Your task to perform on an android device: change text size in settings app Image 0: 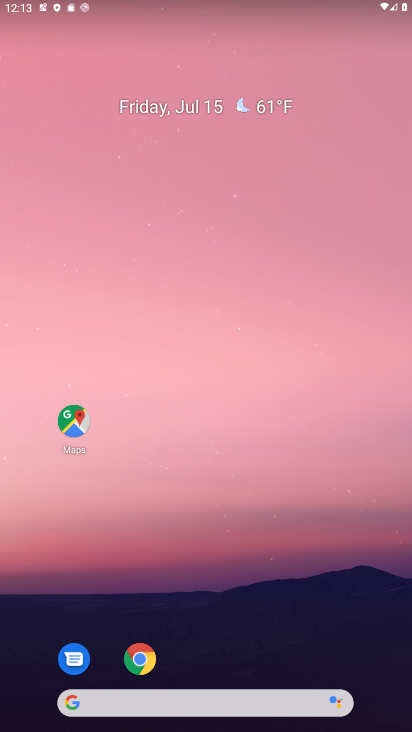
Step 0: drag from (237, 697) to (194, 303)
Your task to perform on an android device: change text size in settings app Image 1: 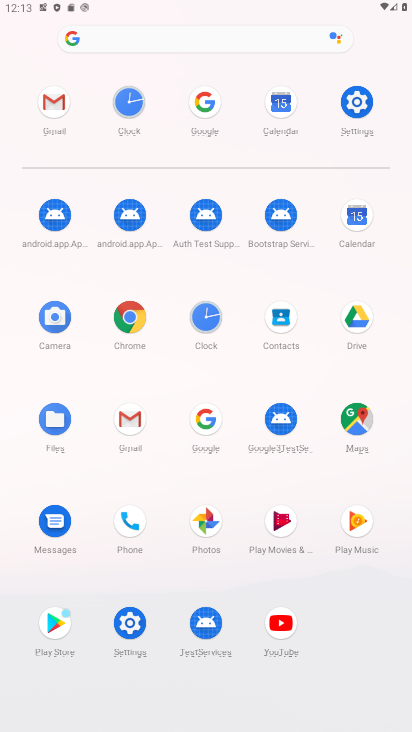
Step 1: click (132, 623)
Your task to perform on an android device: change text size in settings app Image 2: 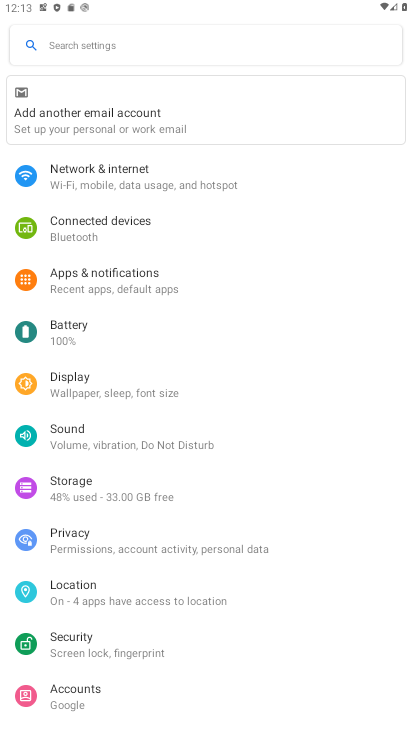
Step 2: drag from (138, 484) to (172, 394)
Your task to perform on an android device: change text size in settings app Image 3: 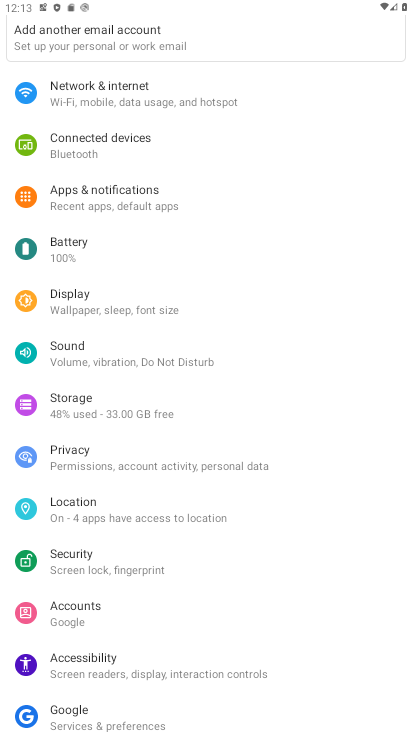
Step 3: drag from (115, 493) to (187, 382)
Your task to perform on an android device: change text size in settings app Image 4: 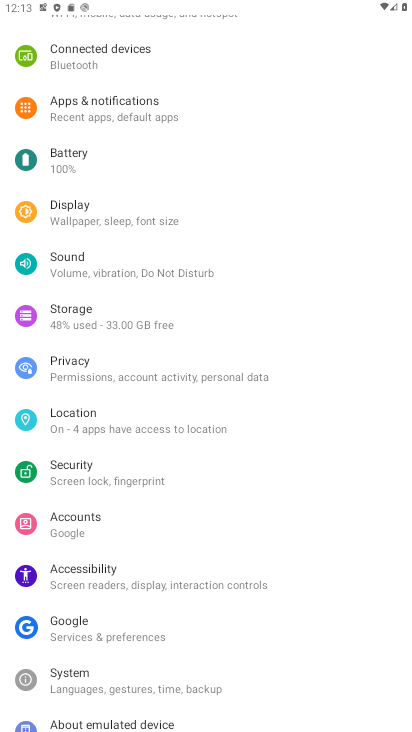
Step 4: drag from (116, 594) to (172, 530)
Your task to perform on an android device: change text size in settings app Image 5: 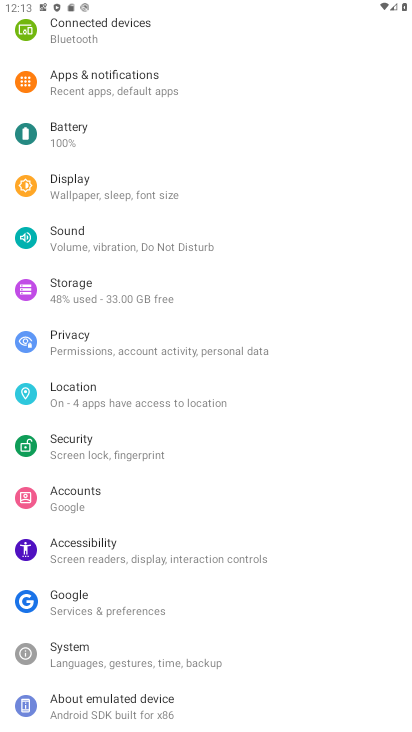
Step 5: click (155, 543)
Your task to perform on an android device: change text size in settings app Image 6: 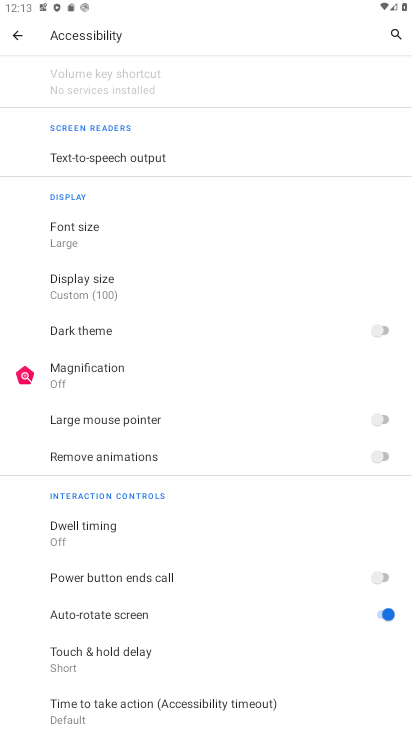
Step 6: click (92, 234)
Your task to perform on an android device: change text size in settings app Image 7: 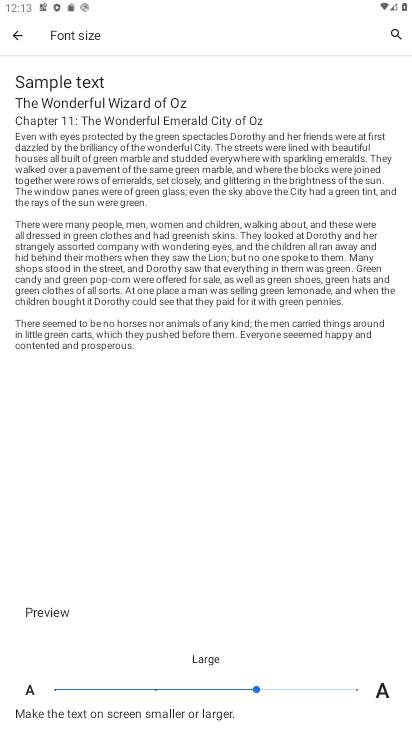
Step 7: click (355, 687)
Your task to perform on an android device: change text size in settings app Image 8: 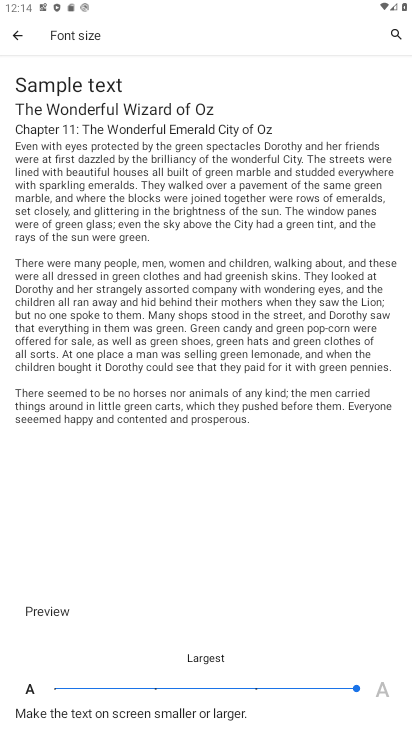
Step 8: task complete